Your task to perform on an android device: remove spam from my inbox in the gmail app Image 0: 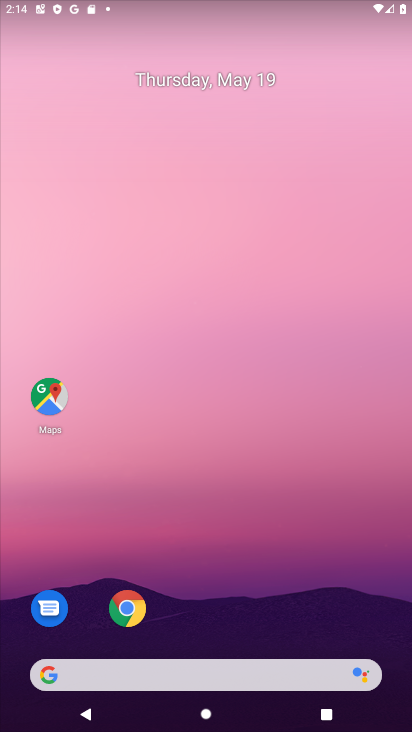
Step 0: drag from (267, 627) to (223, 108)
Your task to perform on an android device: remove spam from my inbox in the gmail app Image 1: 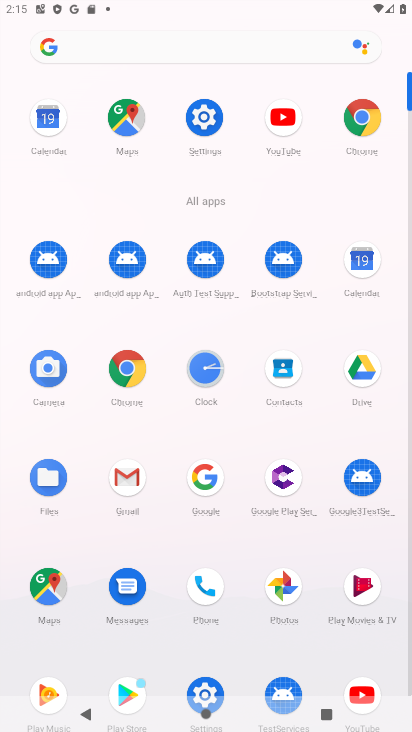
Step 1: click (132, 484)
Your task to perform on an android device: remove spam from my inbox in the gmail app Image 2: 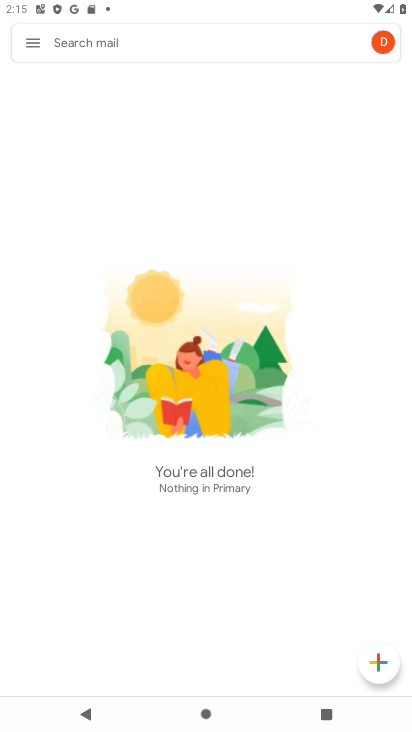
Step 2: click (37, 49)
Your task to perform on an android device: remove spam from my inbox in the gmail app Image 3: 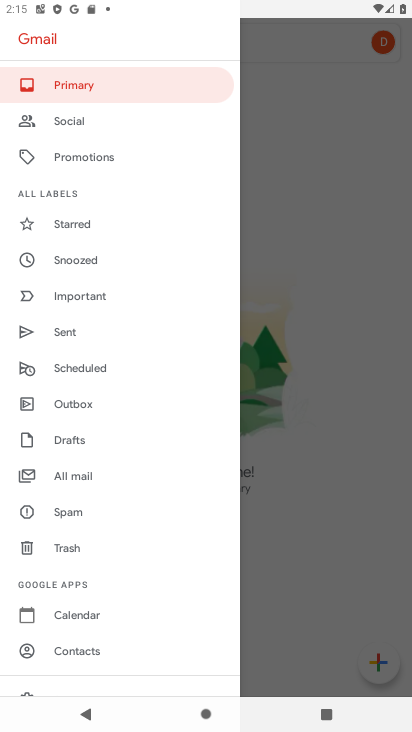
Step 3: click (59, 526)
Your task to perform on an android device: remove spam from my inbox in the gmail app Image 4: 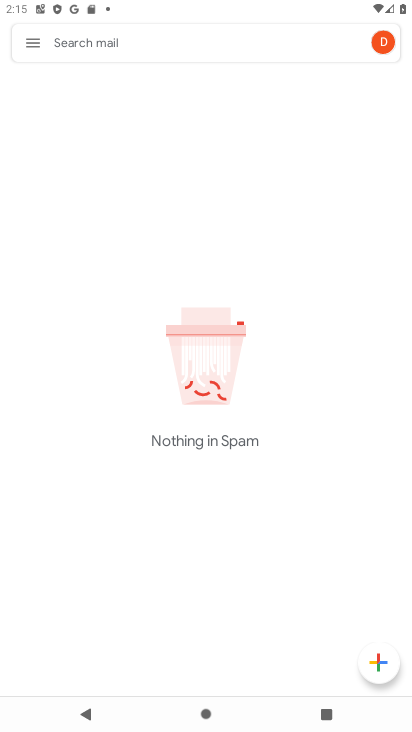
Step 4: task complete